Your task to perform on an android device: Go to calendar. Show me events next week Image 0: 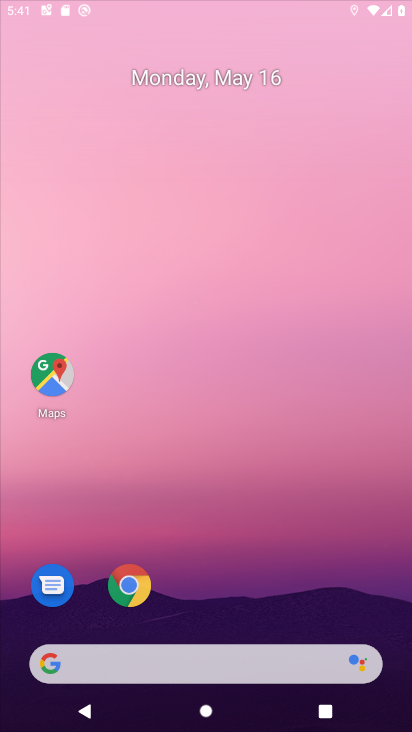
Step 0: click (204, 90)
Your task to perform on an android device: Go to calendar. Show me events next week Image 1: 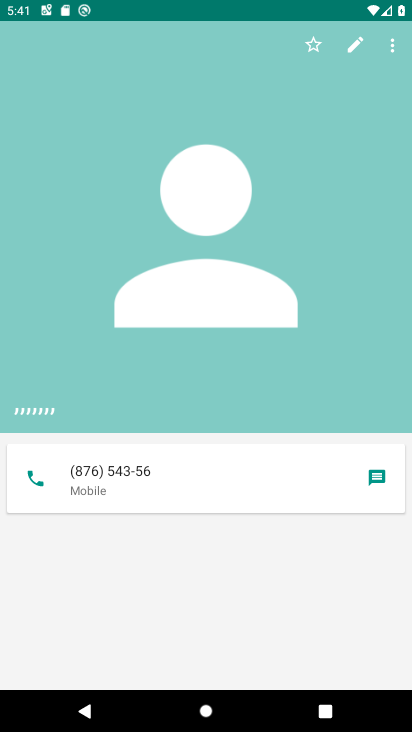
Step 1: press home button
Your task to perform on an android device: Go to calendar. Show me events next week Image 2: 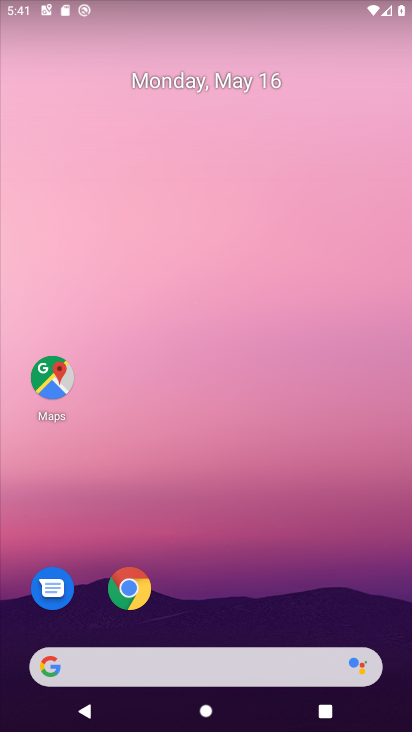
Step 2: drag from (243, 384) to (213, 113)
Your task to perform on an android device: Go to calendar. Show me events next week Image 3: 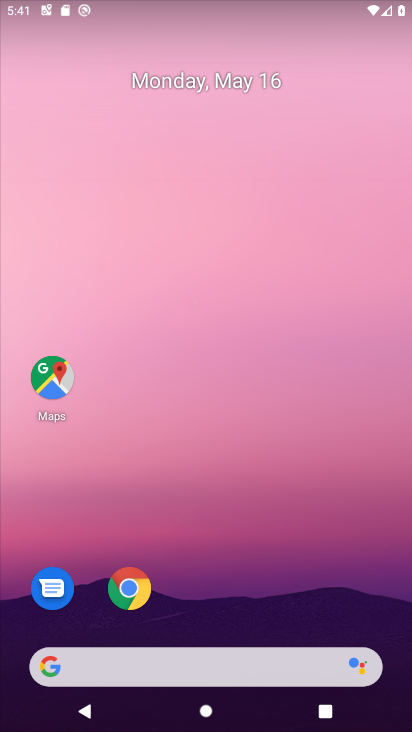
Step 3: drag from (261, 519) to (246, 6)
Your task to perform on an android device: Go to calendar. Show me events next week Image 4: 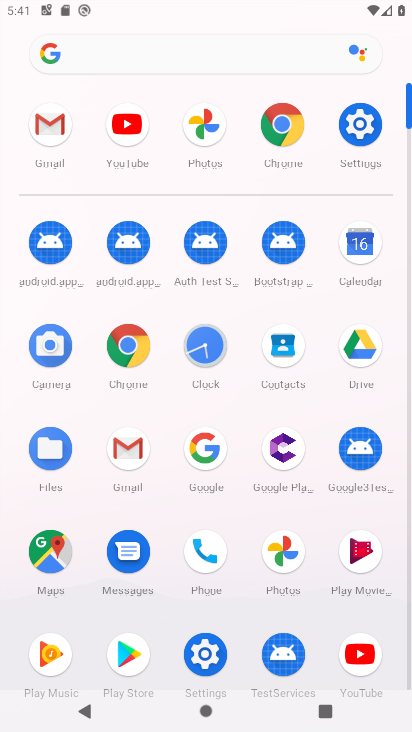
Step 4: click (366, 259)
Your task to perform on an android device: Go to calendar. Show me events next week Image 5: 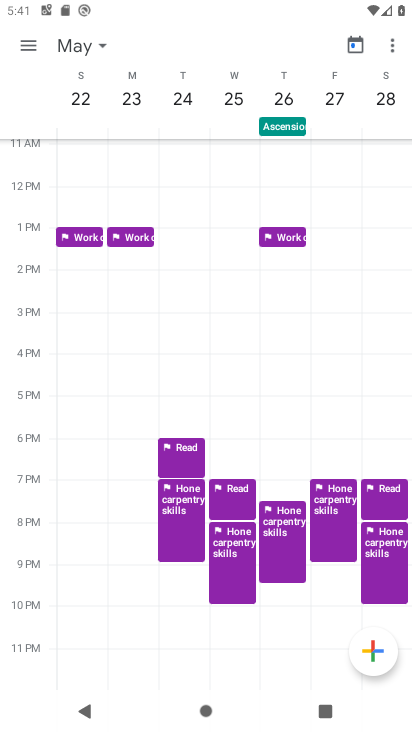
Step 5: task complete